Your task to perform on an android device: Play the last video I watched on Youtube Image 0: 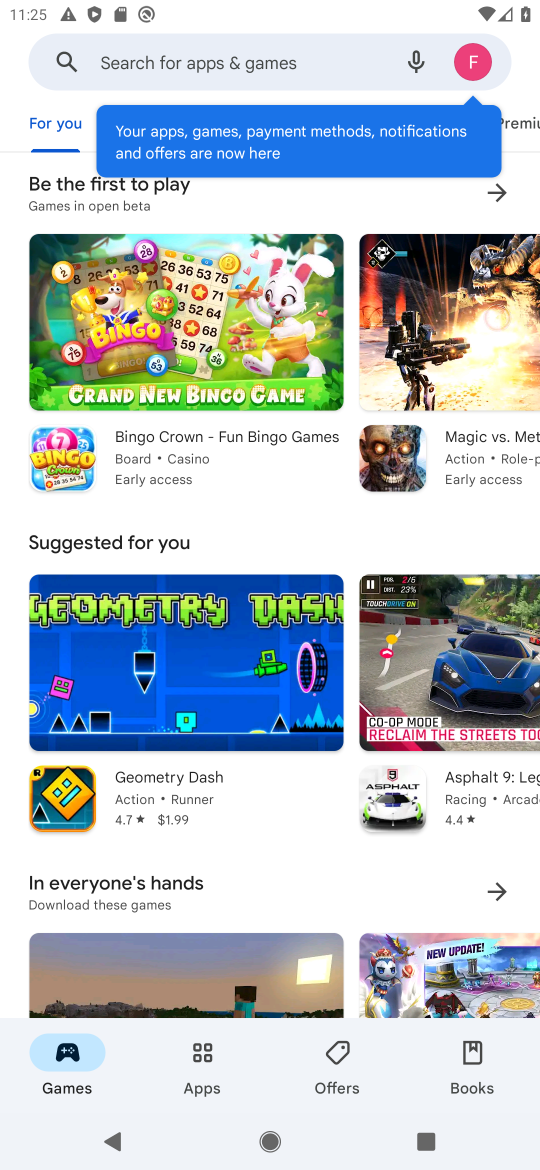
Step 0: press home button
Your task to perform on an android device: Play the last video I watched on Youtube Image 1: 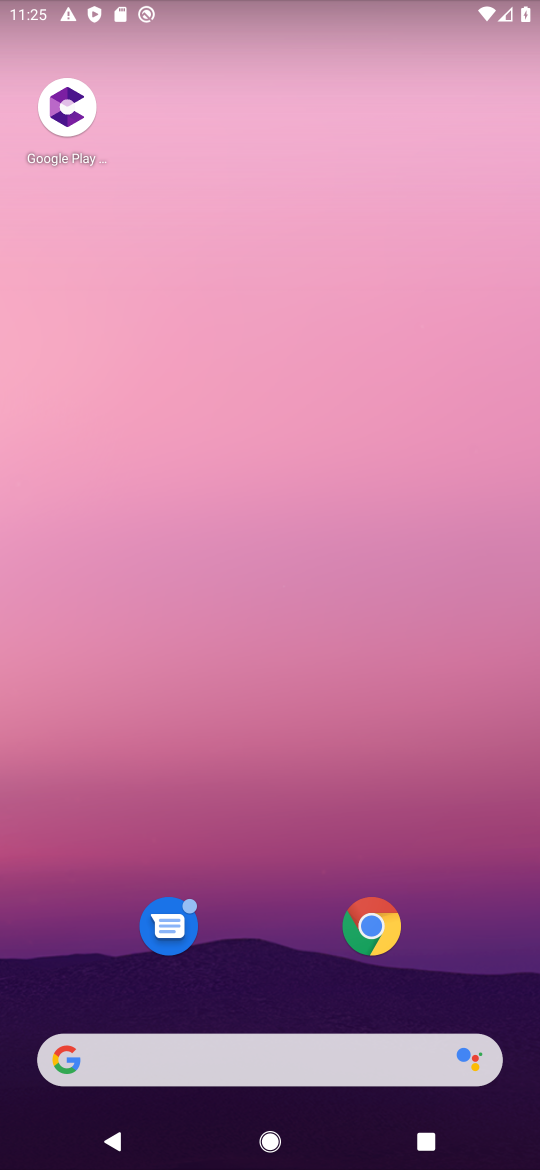
Step 1: drag from (95, 819) to (357, 224)
Your task to perform on an android device: Play the last video I watched on Youtube Image 2: 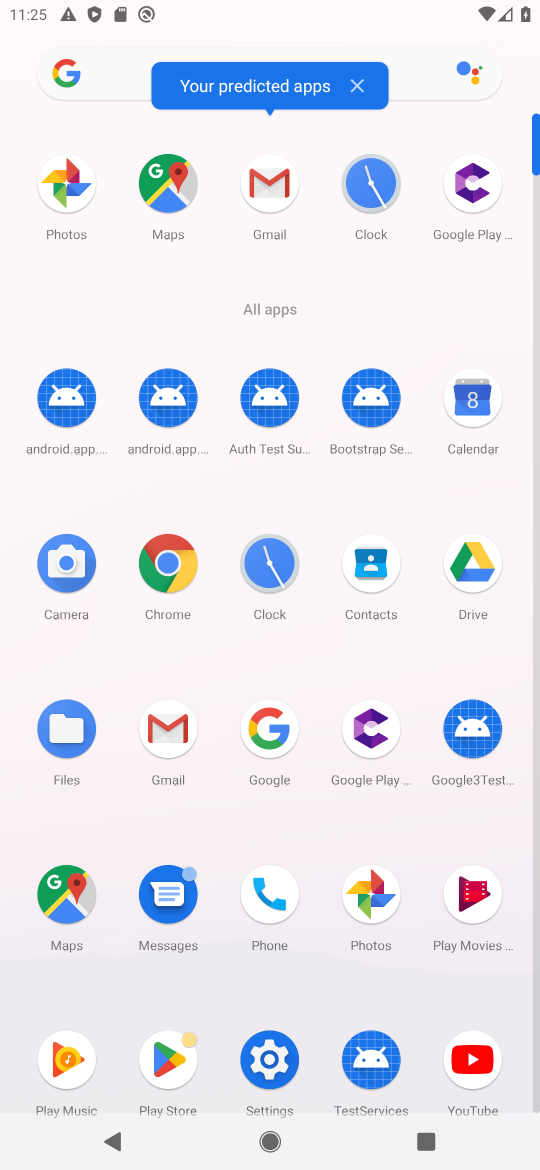
Step 2: click (476, 1054)
Your task to perform on an android device: Play the last video I watched on Youtube Image 3: 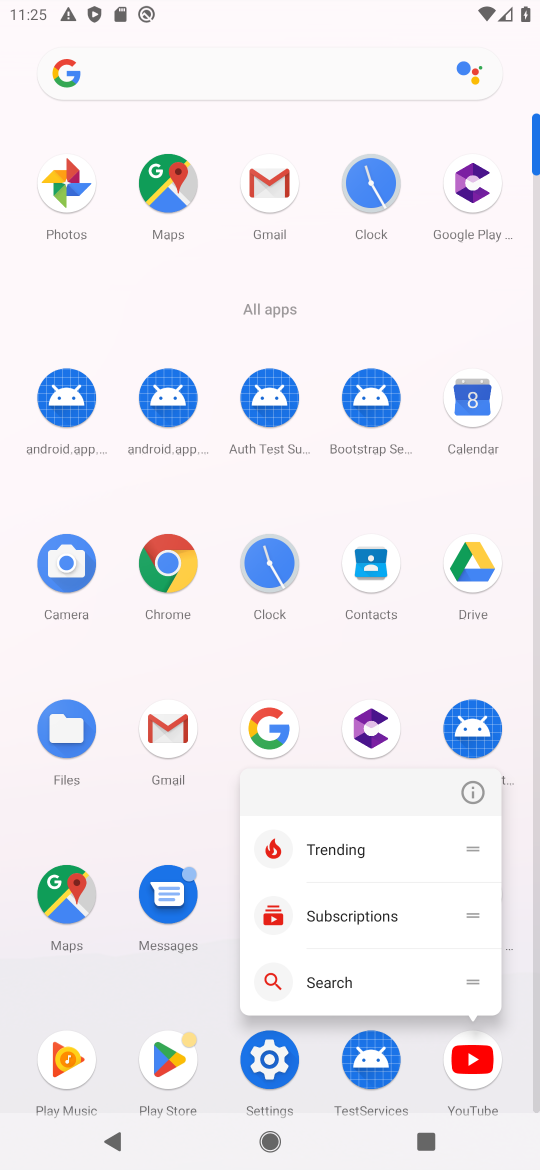
Step 3: click (469, 1050)
Your task to perform on an android device: Play the last video I watched on Youtube Image 4: 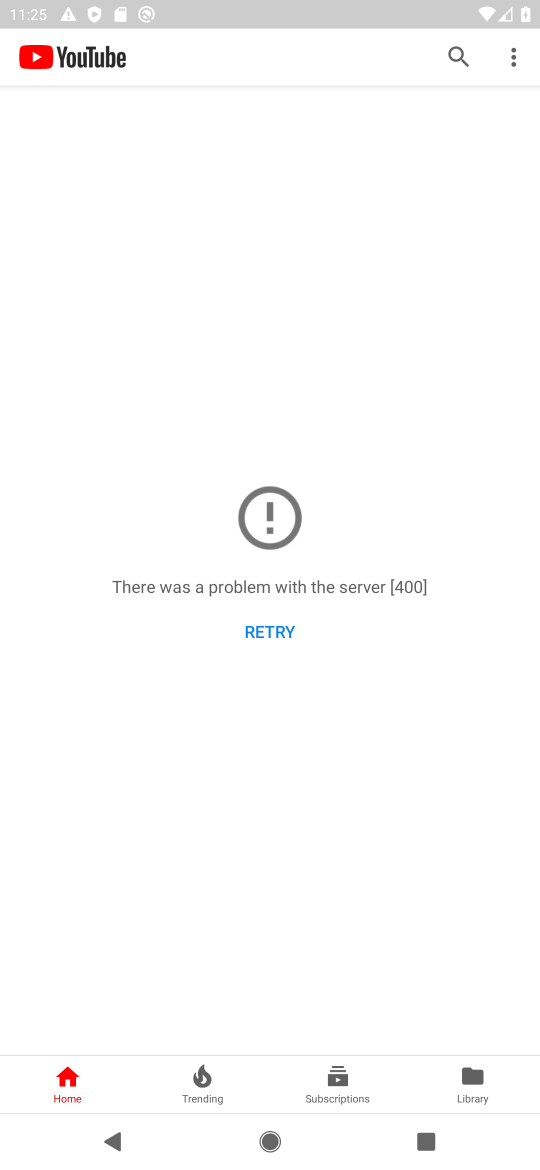
Step 4: task complete